Your task to perform on an android device: Open sound settings Image 0: 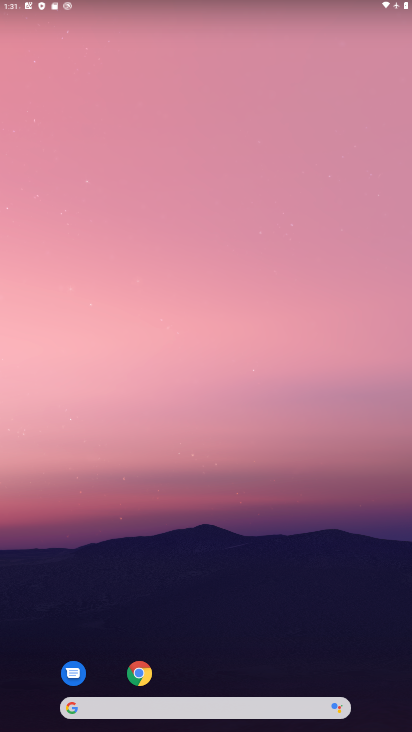
Step 0: drag from (216, 549) to (209, 243)
Your task to perform on an android device: Open sound settings Image 1: 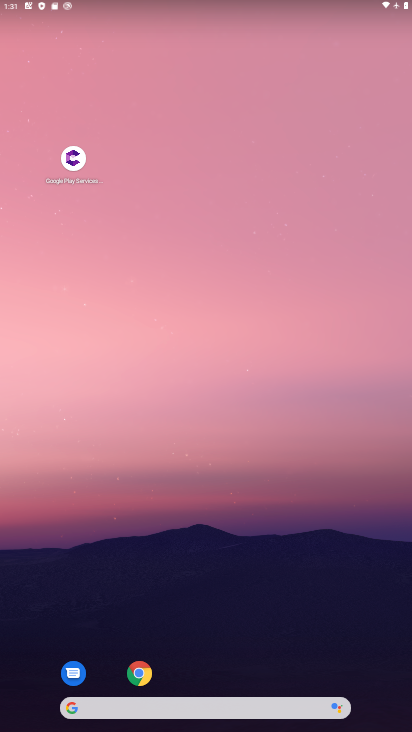
Step 1: drag from (190, 671) to (195, 268)
Your task to perform on an android device: Open sound settings Image 2: 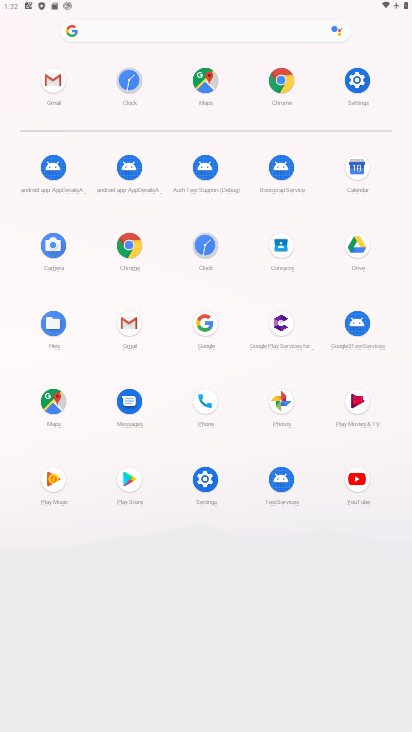
Step 2: click (363, 73)
Your task to perform on an android device: Open sound settings Image 3: 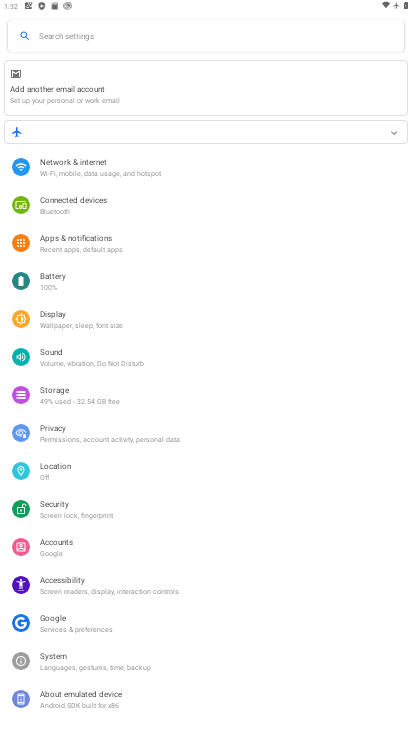
Step 3: click (74, 346)
Your task to perform on an android device: Open sound settings Image 4: 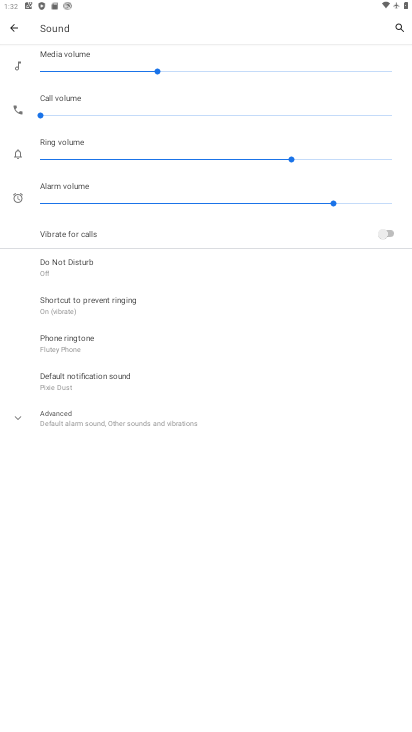
Step 4: task complete